Your task to perform on an android device: open app "Yahoo Mail" (install if not already installed), go to login, and select forgot password Image 0: 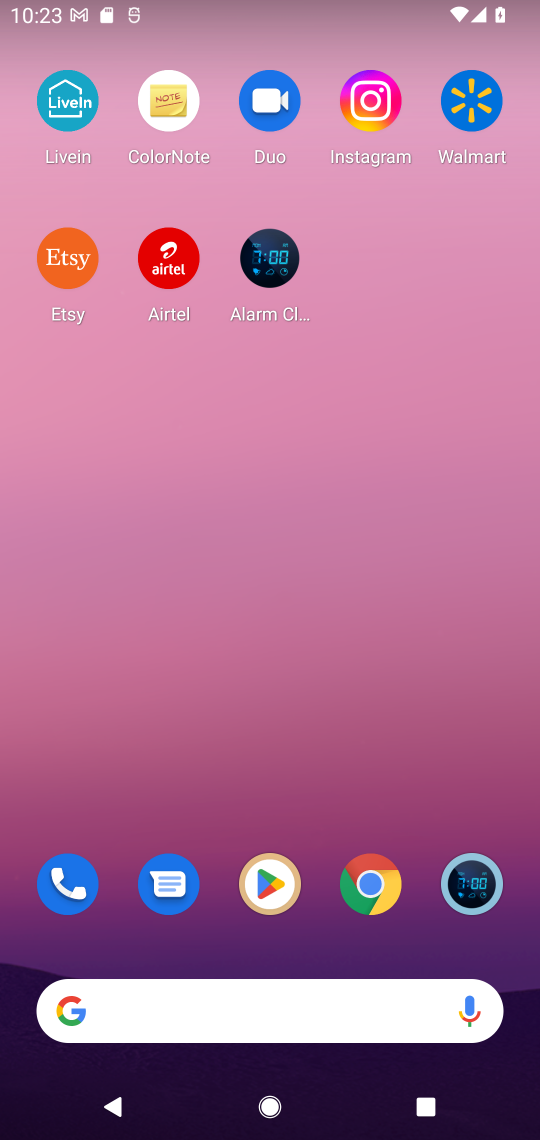
Step 0: click (268, 897)
Your task to perform on an android device: open app "Yahoo Mail" (install if not already installed), go to login, and select forgot password Image 1: 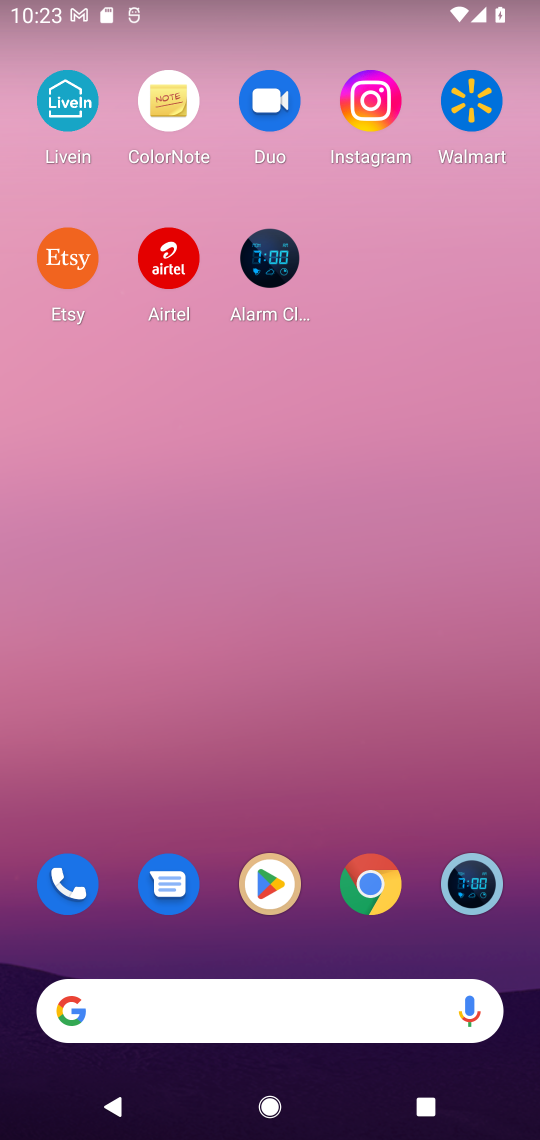
Step 1: click (268, 894)
Your task to perform on an android device: open app "Yahoo Mail" (install if not already installed), go to login, and select forgot password Image 2: 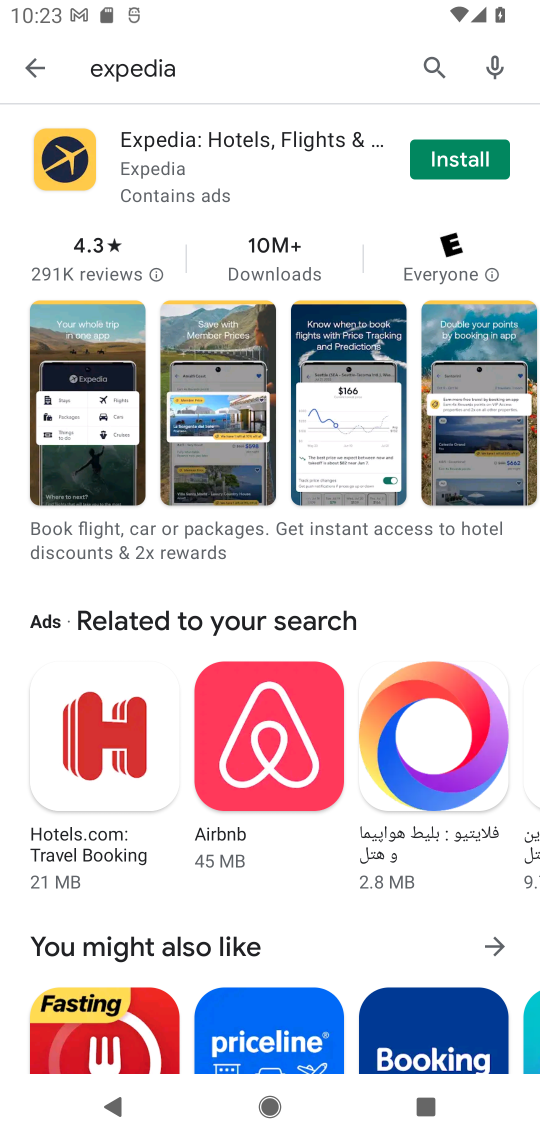
Step 2: click (437, 82)
Your task to perform on an android device: open app "Yahoo Mail" (install if not already installed), go to login, and select forgot password Image 3: 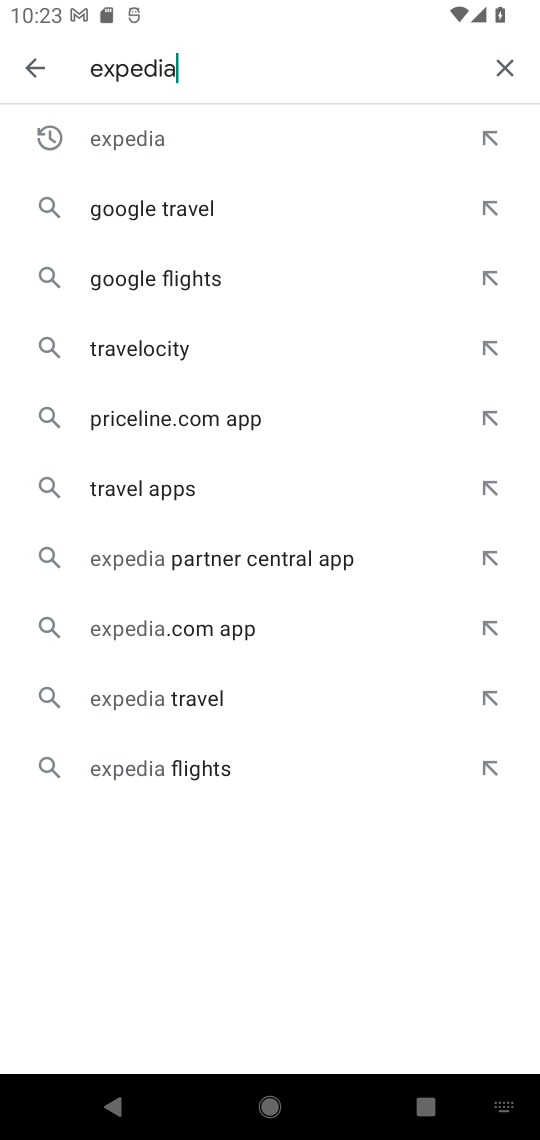
Step 3: click (510, 76)
Your task to perform on an android device: open app "Yahoo Mail" (install if not already installed), go to login, and select forgot password Image 4: 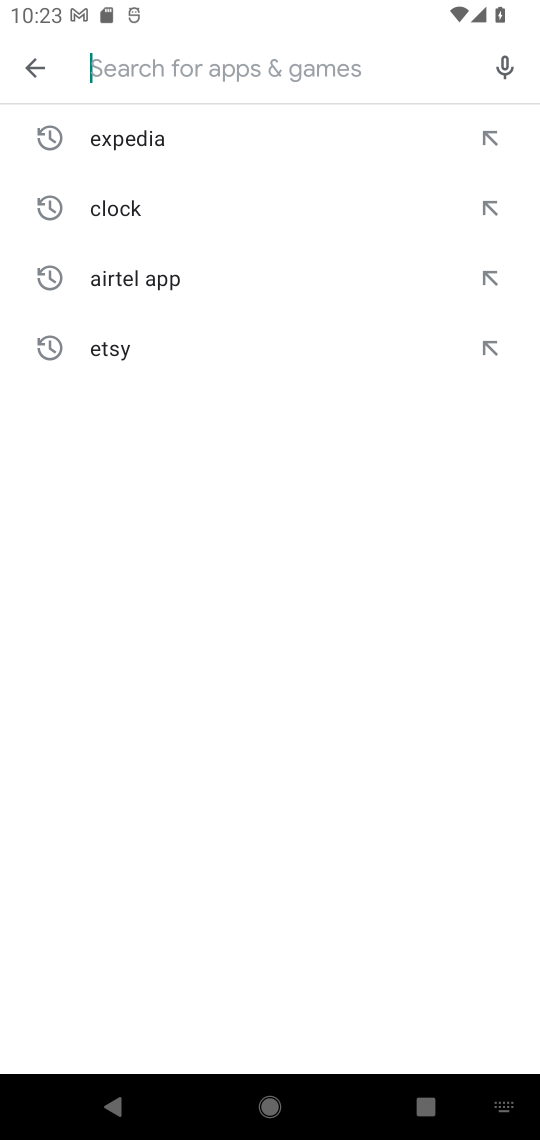
Step 4: type "yahoo mail"
Your task to perform on an android device: open app "Yahoo Mail" (install if not already installed), go to login, and select forgot password Image 5: 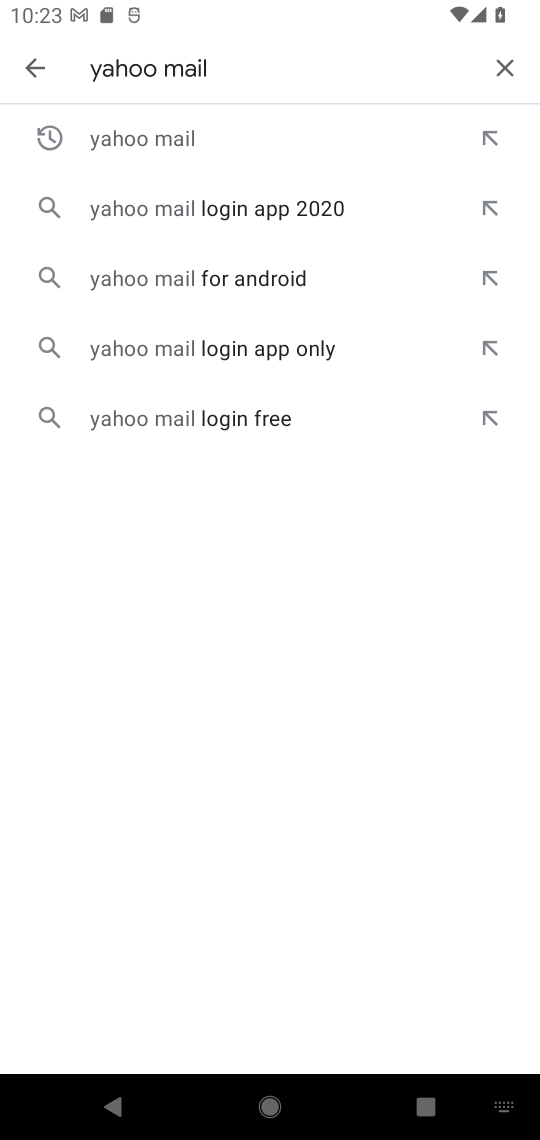
Step 5: click (191, 159)
Your task to perform on an android device: open app "Yahoo Mail" (install if not already installed), go to login, and select forgot password Image 6: 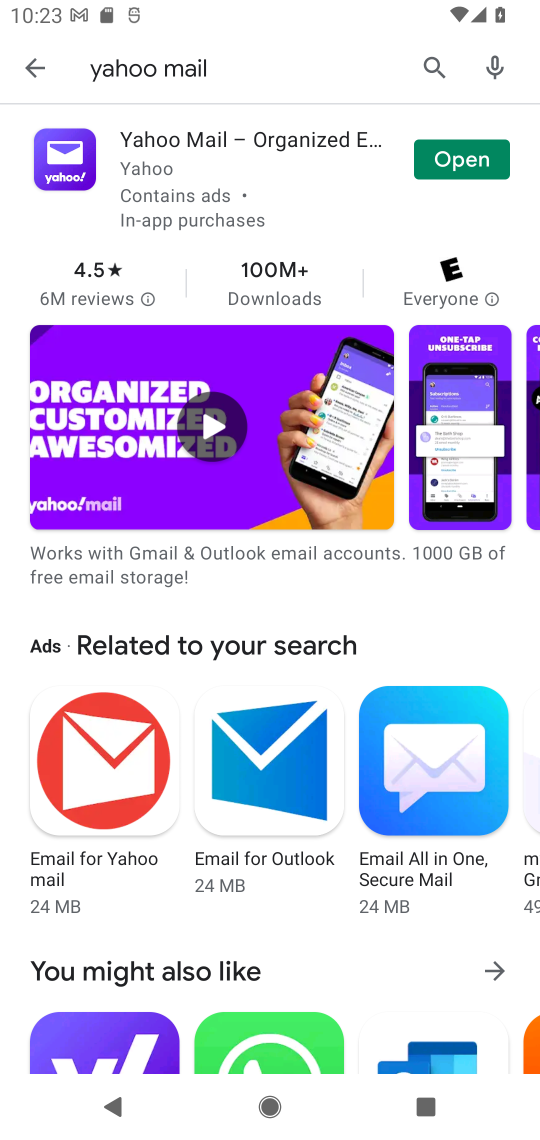
Step 6: click (454, 162)
Your task to perform on an android device: open app "Yahoo Mail" (install if not already installed), go to login, and select forgot password Image 7: 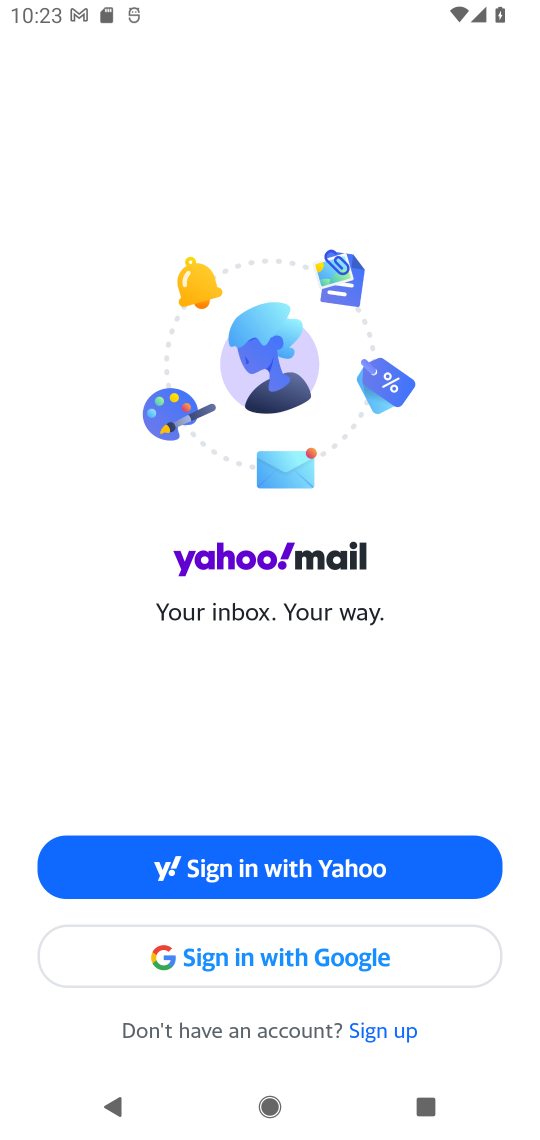
Step 7: task complete